Your task to perform on an android device: check storage Image 0: 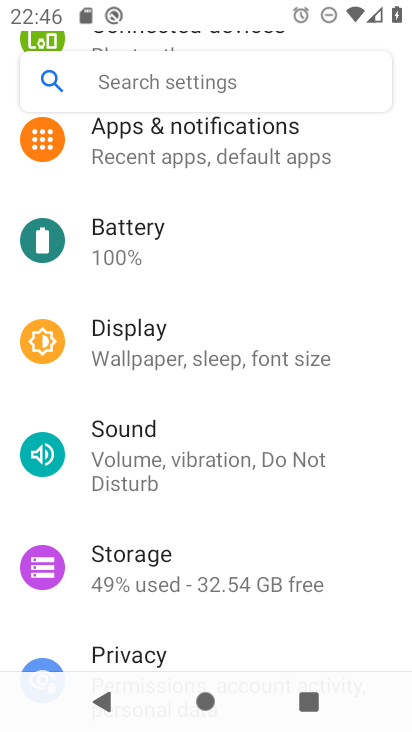
Step 0: press home button
Your task to perform on an android device: check storage Image 1: 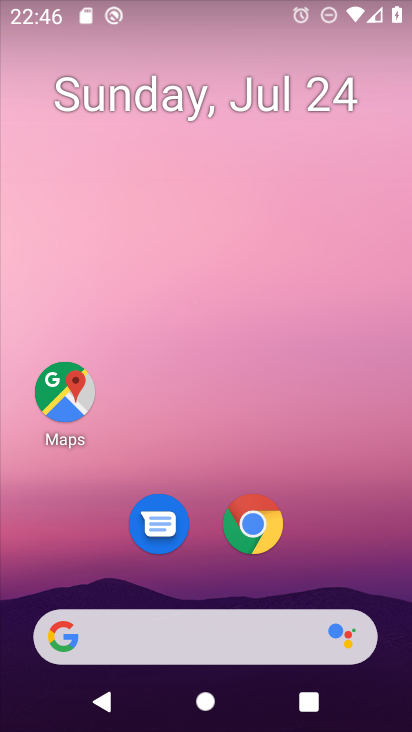
Step 1: drag from (320, 215) to (330, 118)
Your task to perform on an android device: check storage Image 2: 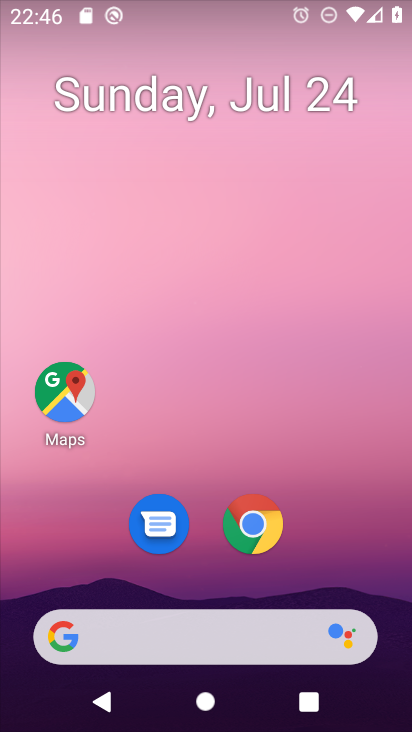
Step 2: drag from (208, 640) to (334, 65)
Your task to perform on an android device: check storage Image 3: 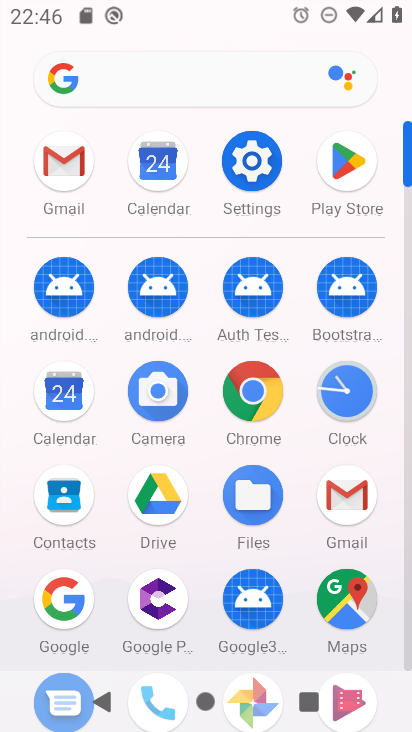
Step 3: click (263, 157)
Your task to perform on an android device: check storage Image 4: 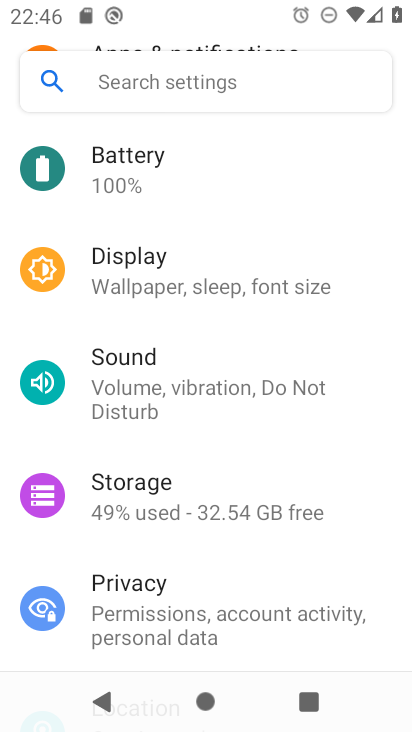
Step 4: drag from (332, 195) to (283, 551)
Your task to perform on an android device: check storage Image 5: 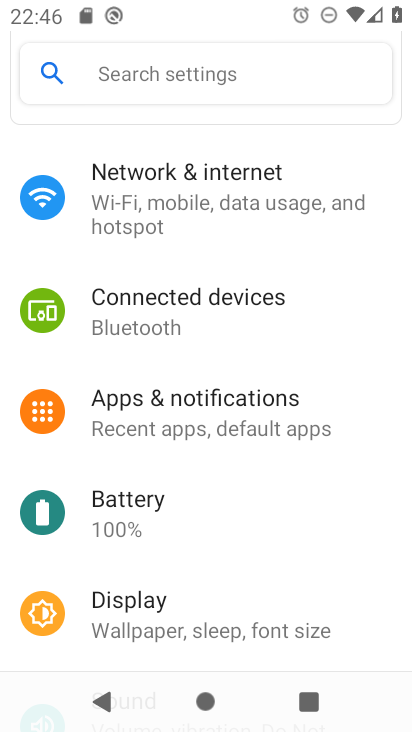
Step 5: drag from (297, 392) to (349, 125)
Your task to perform on an android device: check storage Image 6: 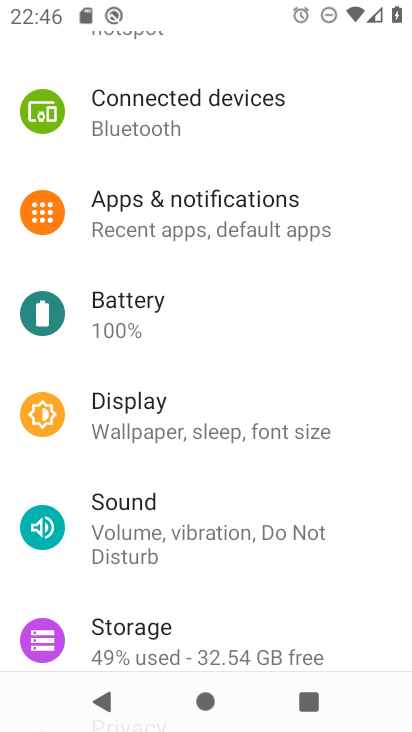
Step 6: click (150, 623)
Your task to perform on an android device: check storage Image 7: 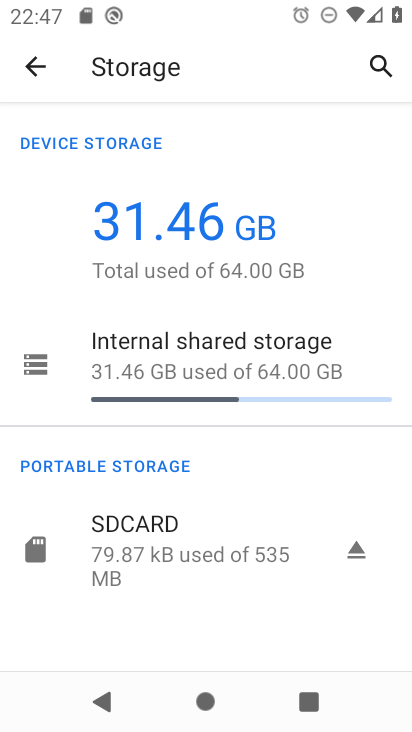
Step 7: task complete